Your task to perform on an android device: change text size in settings app Image 0: 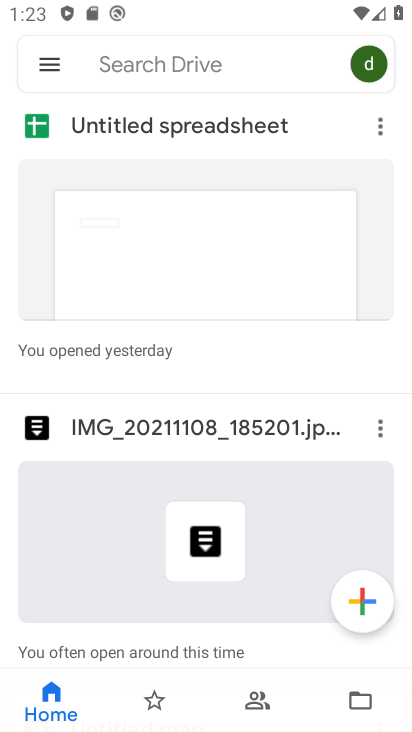
Step 0: press home button
Your task to perform on an android device: change text size in settings app Image 1: 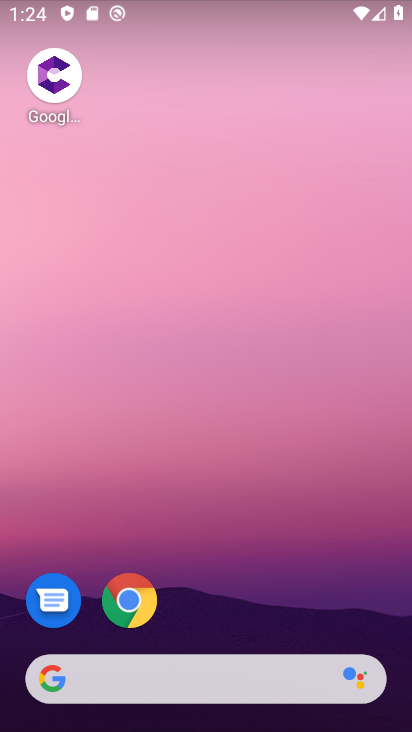
Step 1: drag from (215, 624) to (189, 98)
Your task to perform on an android device: change text size in settings app Image 2: 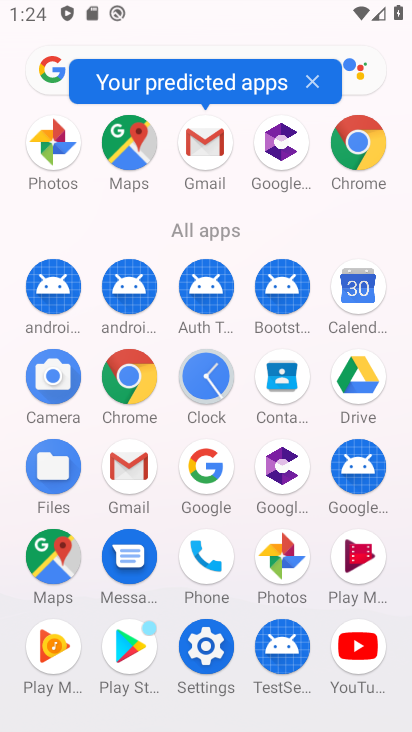
Step 2: click (206, 658)
Your task to perform on an android device: change text size in settings app Image 3: 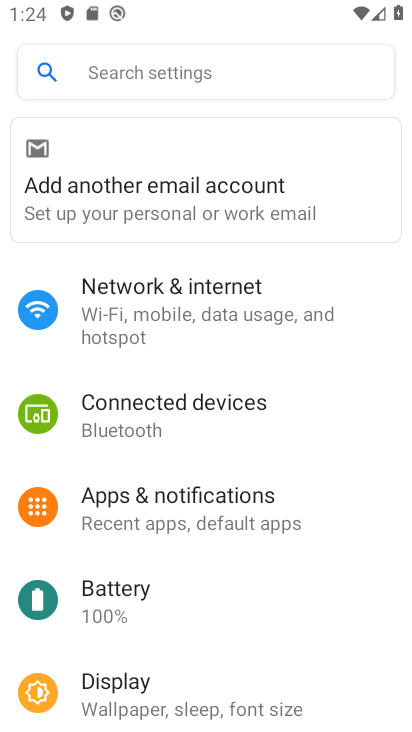
Step 3: drag from (156, 692) to (161, 400)
Your task to perform on an android device: change text size in settings app Image 4: 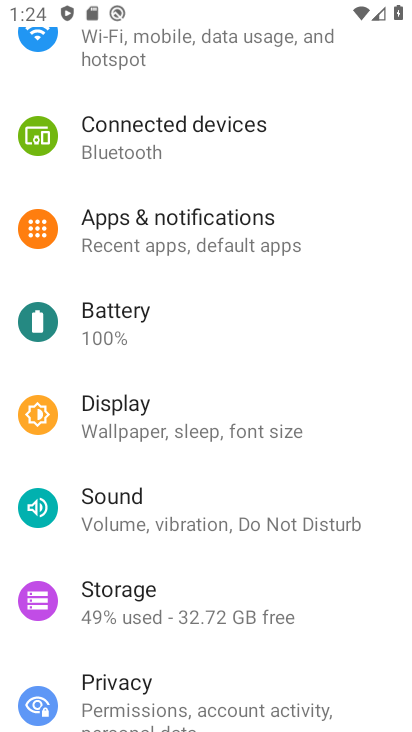
Step 4: click (137, 439)
Your task to perform on an android device: change text size in settings app Image 5: 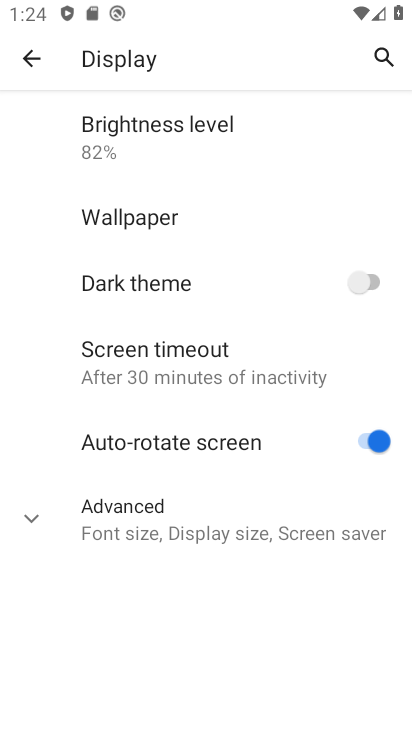
Step 5: click (159, 520)
Your task to perform on an android device: change text size in settings app Image 6: 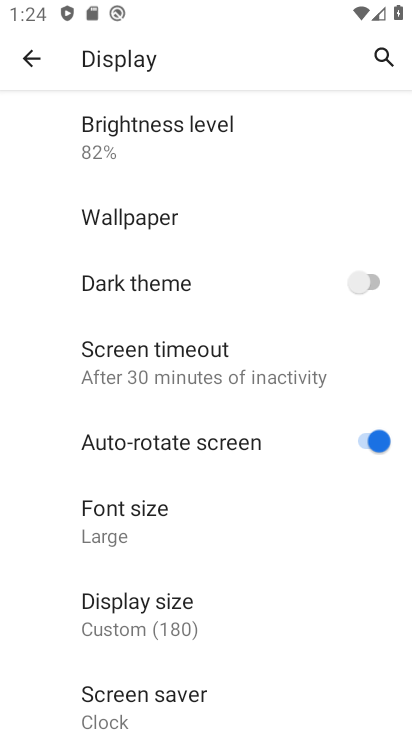
Step 6: drag from (180, 673) to (164, 569)
Your task to perform on an android device: change text size in settings app Image 7: 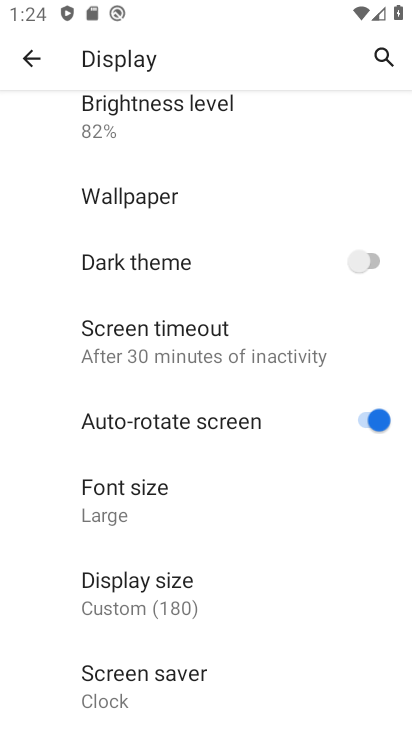
Step 7: click (143, 502)
Your task to perform on an android device: change text size in settings app Image 8: 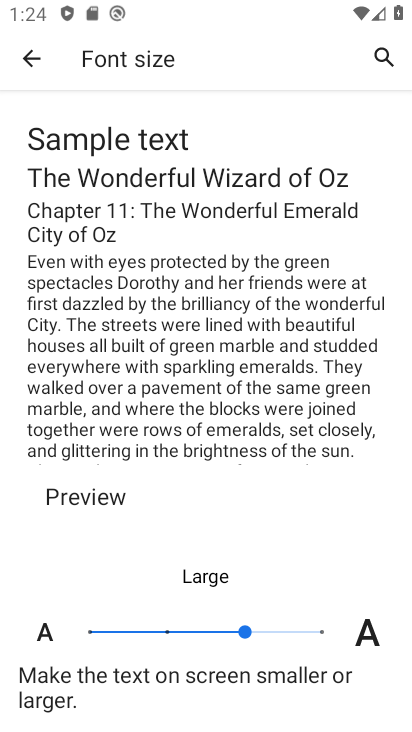
Step 8: click (167, 636)
Your task to perform on an android device: change text size in settings app Image 9: 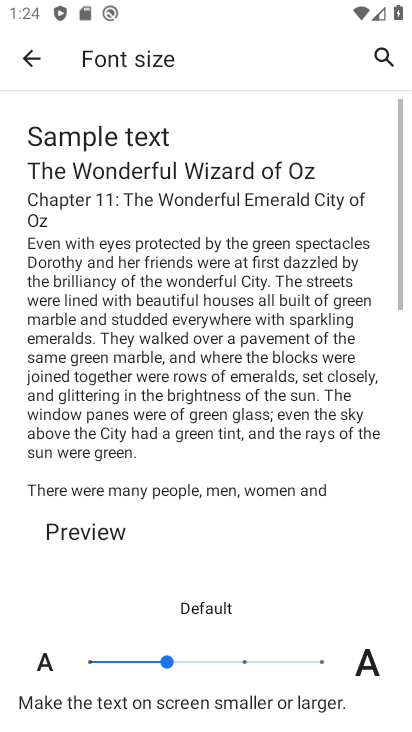
Step 9: task complete